Your task to perform on an android device: change the clock display to analog Image 0: 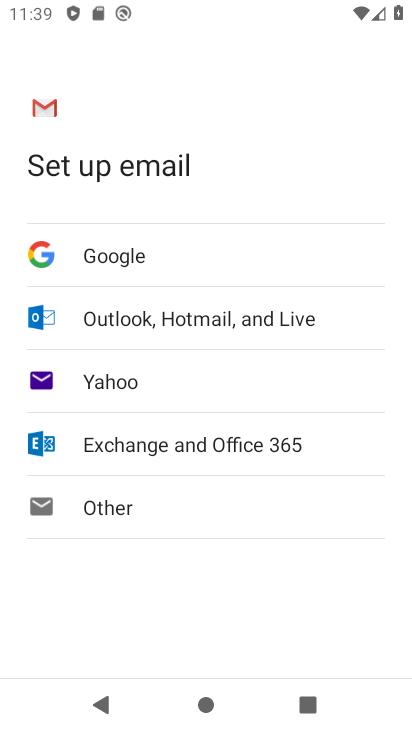
Step 0: press home button
Your task to perform on an android device: change the clock display to analog Image 1: 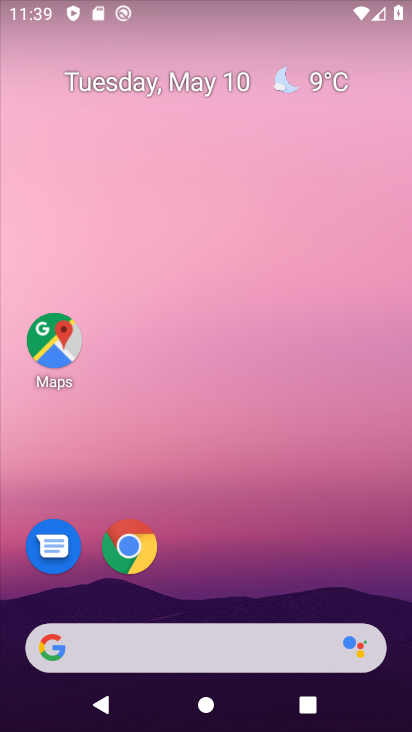
Step 1: drag from (226, 598) to (223, 76)
Your task to perform on an android device: change the clock display to analog Image 2: 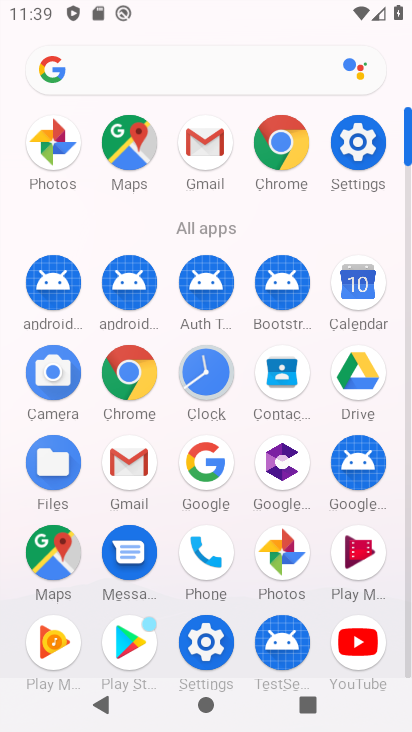
Step 2: click (209, 390)
Your task to perform on an android device: change the clock display to analog Image 3: 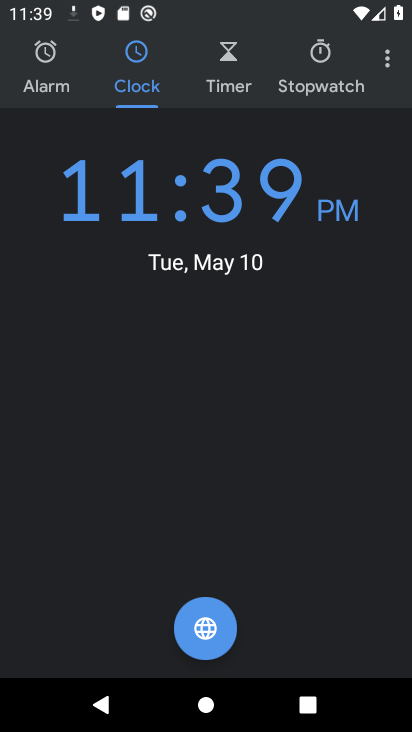
Step 3: click (386, 54)
Your task to perform on an android device: change the clock display to analog Image 4: 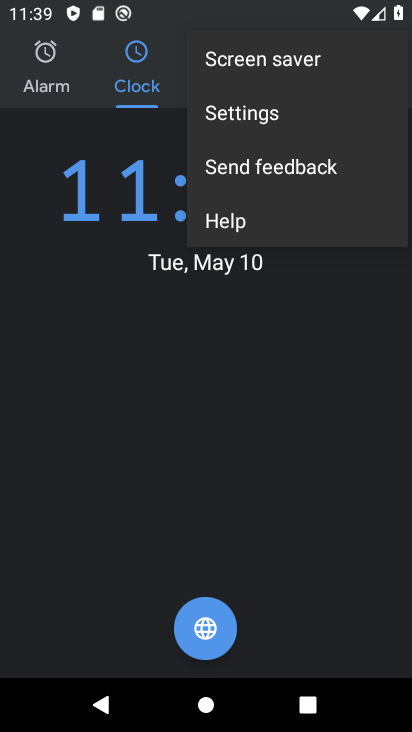
Step 4: click (253, 117)
Your task to perform on an android device: change the clock display to analog Image 5: 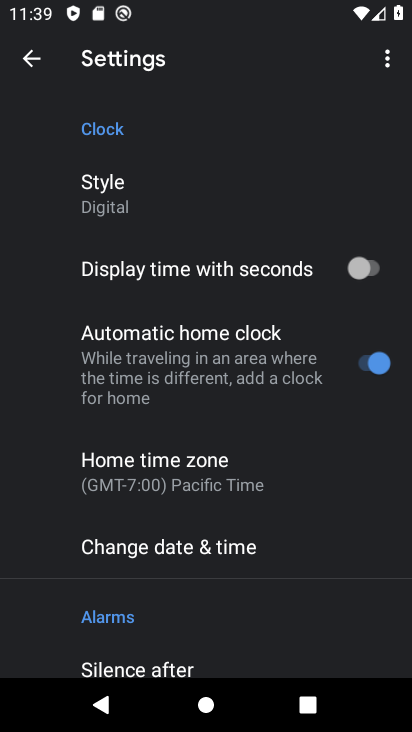
Step 5: click (147, 187)
Your task to perform on an android device: change the clock display to analog Image 6: 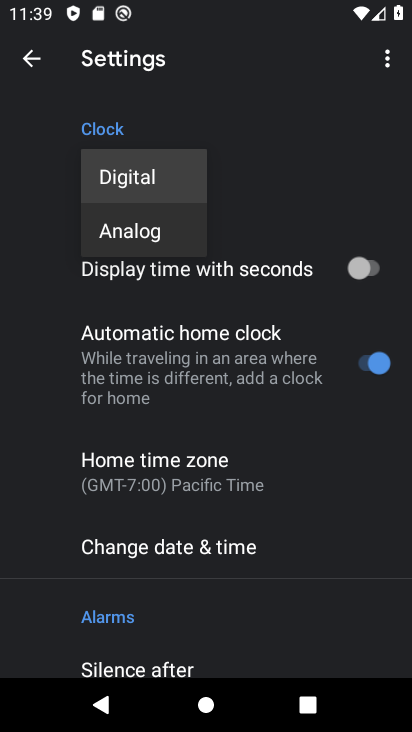
Step 6: click (105, 231)
Your task to perform on an android device: change the clock display to analog Image 7: 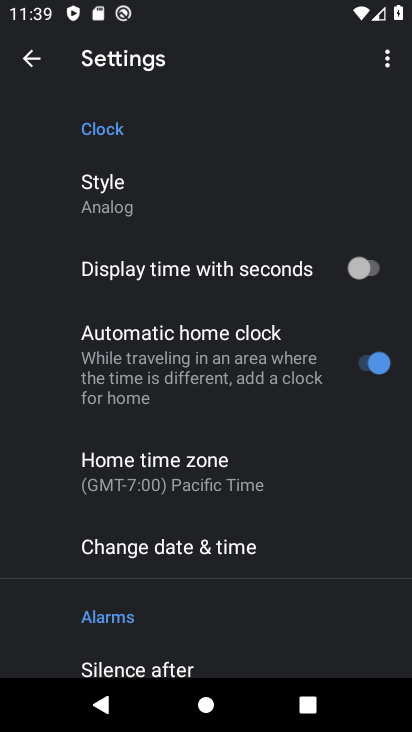
Step 7: task complete